Your task to perform on an android device: Google the capital of Panama Image 0: 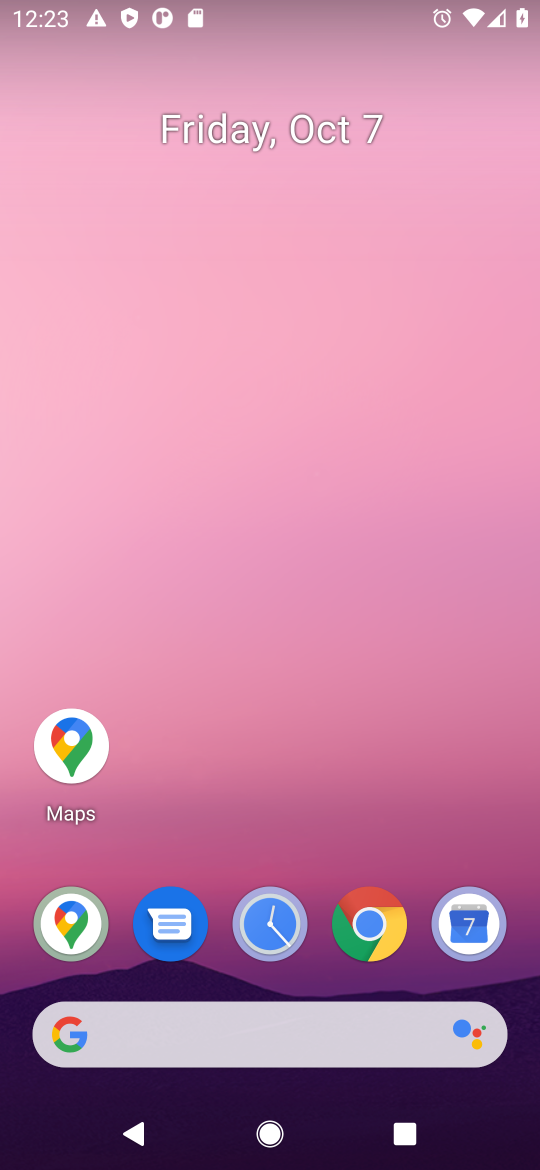
Step 0: click (360, 926)
Your task to perform on an android device: Google the capital of Panama Image 1: 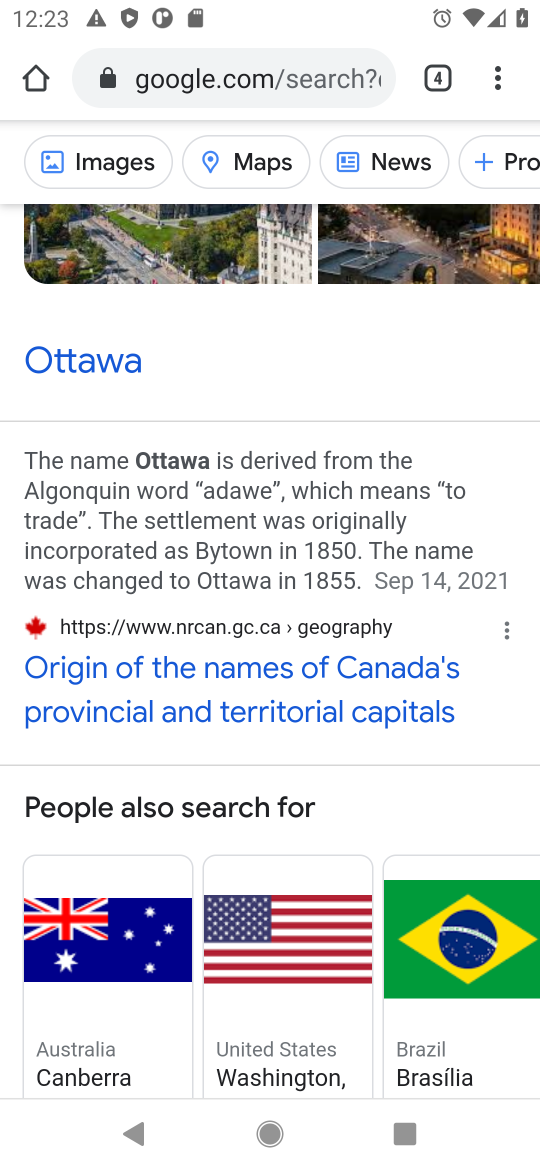
Step 1: click (336, 74)
Your task to perform on an android device: Google the capital of Panama Image 2: 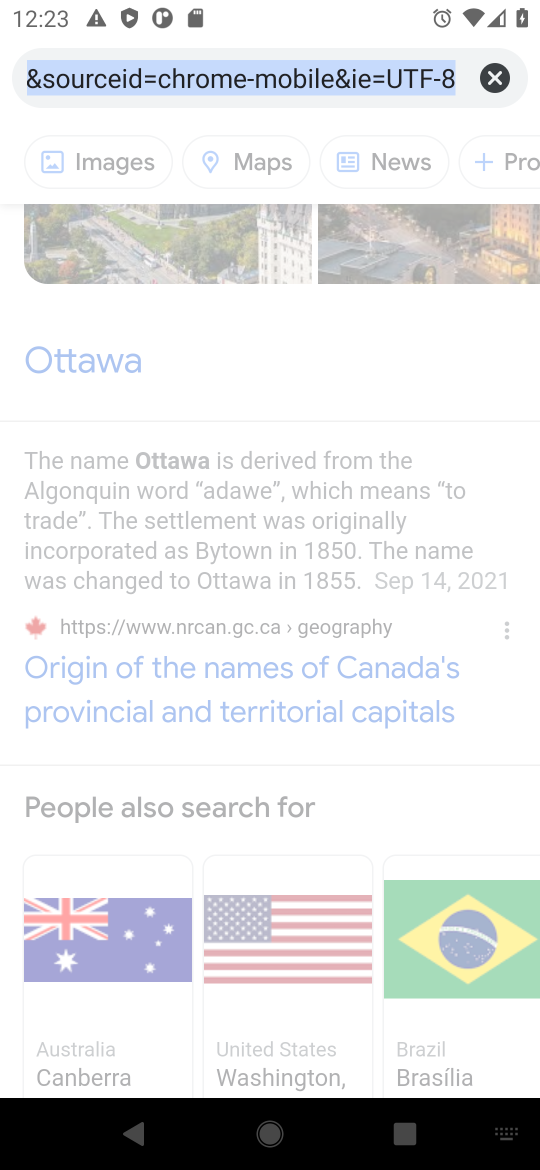
Step 2: click (490, 71)
Your task to perform on an android device: Google the capital of Panama Image 3: 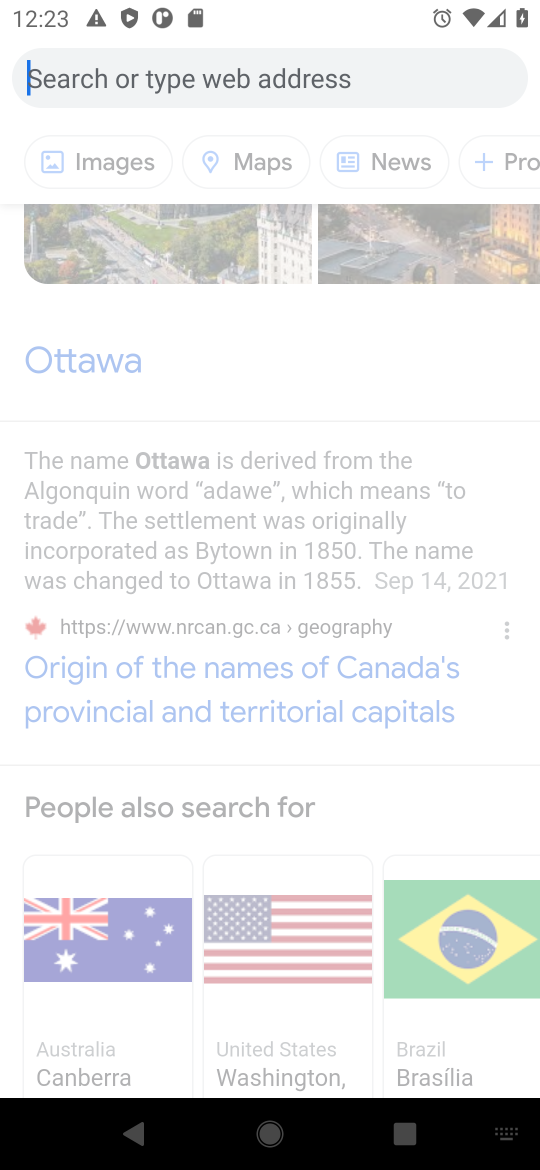
Step 3: type "capital of Panama"
Your task to perform on an android device: Google the capital of Panama Image 4: 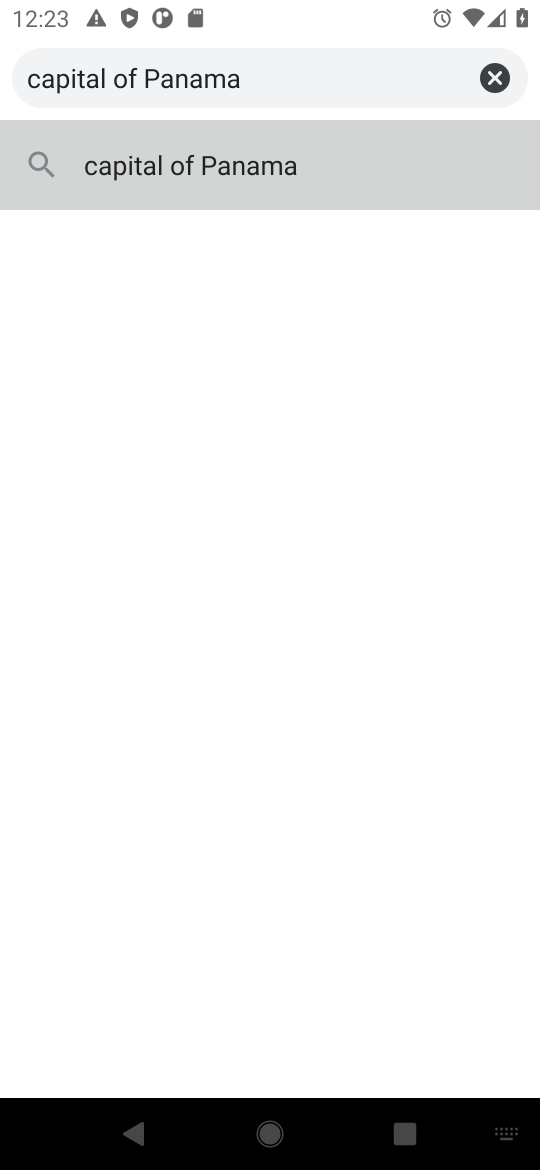
Step 4: click (255, 164)
Your task to perform on an android device: Google the capital of Panama Image 5: 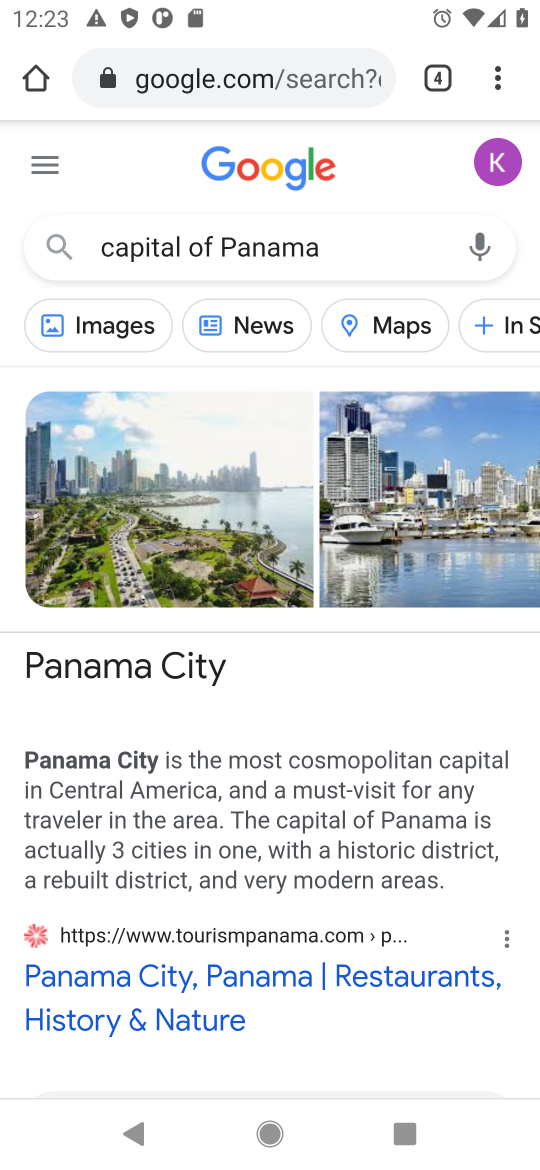
Step 5: drag from (319, 815) to (404, 358)
Your task to perform on an android device: Google the capital of Panama Image 6: 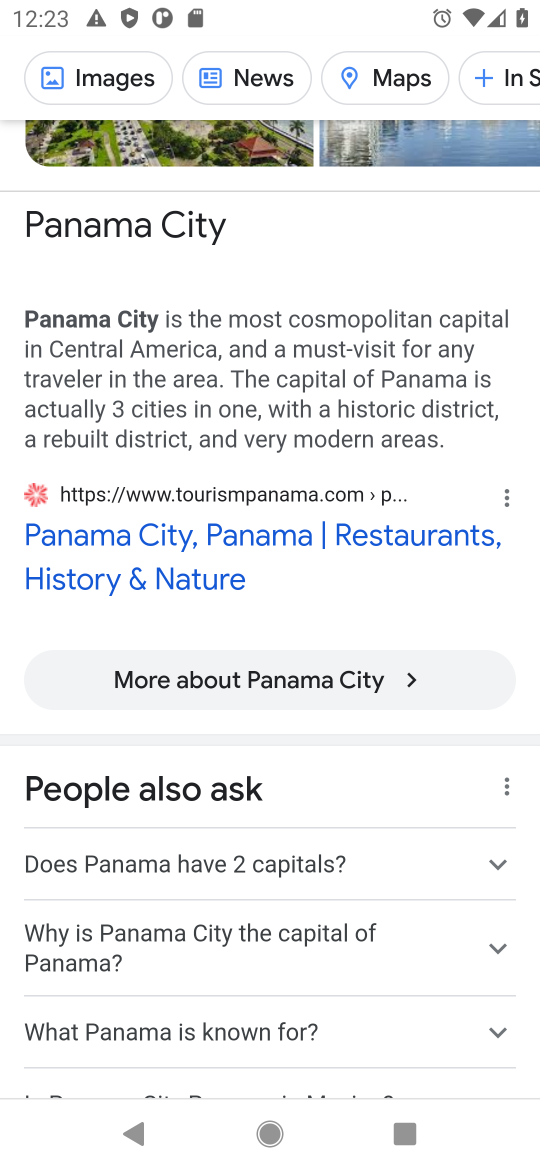
Step 6: click (245, 539)
Your task to perform on an android device: Google the capital of Panama Image 7: 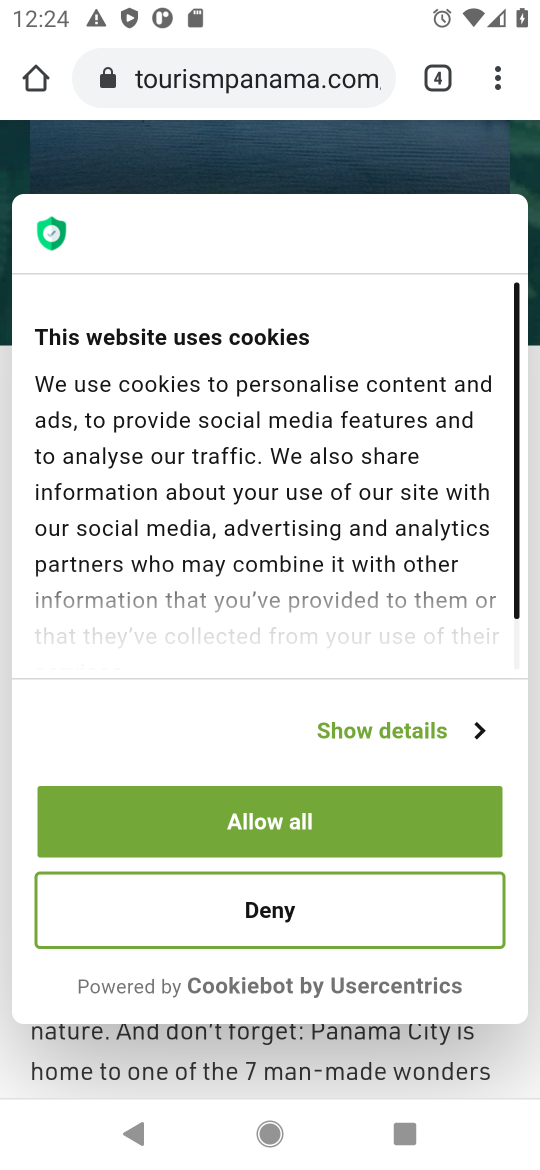
Step 7: click (291, 819)
Your task to perform on an android device: Google the capital of Panama Image 8: 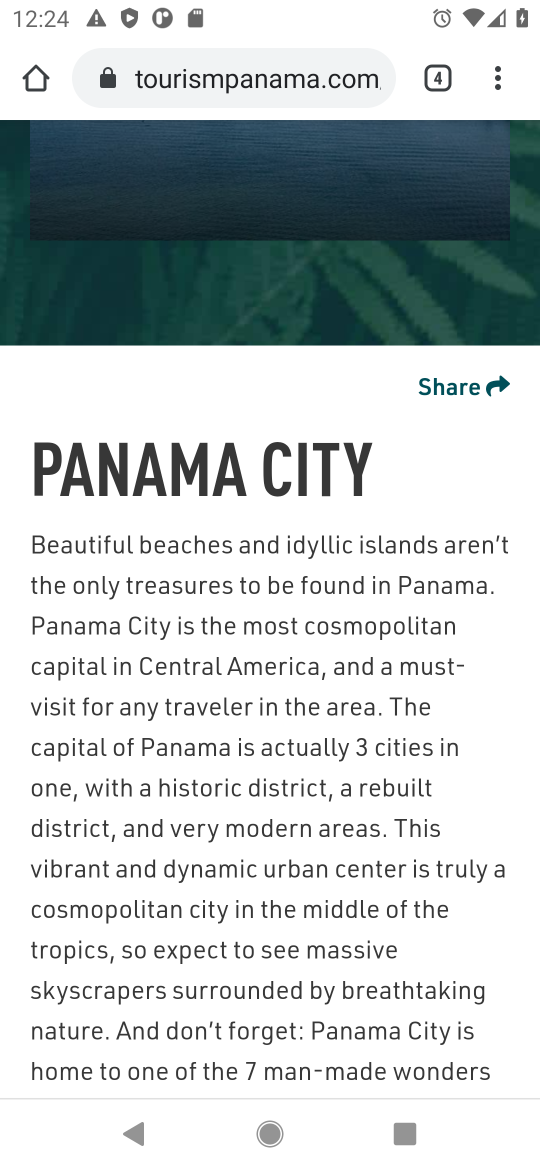
Step 8: task complete